Your task to perform on an android device: Open settings on Google Maps Image 0: 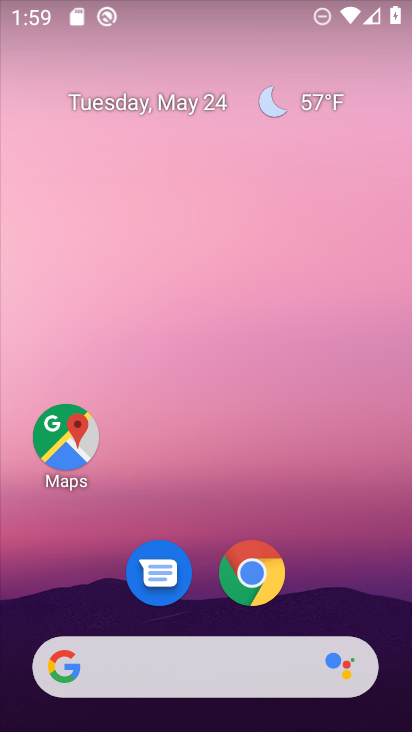
Step 0: drag from (366, 573) to (359, 179)
Your task to perform on an android device: Open settings on Google Maps Image 1: 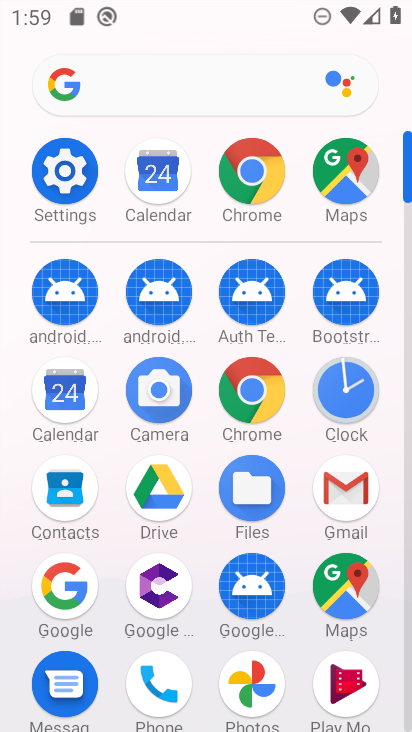
Step 1: click (368, 590)
Your task to perform on an android device: Open settings on Google Maps Image 2: 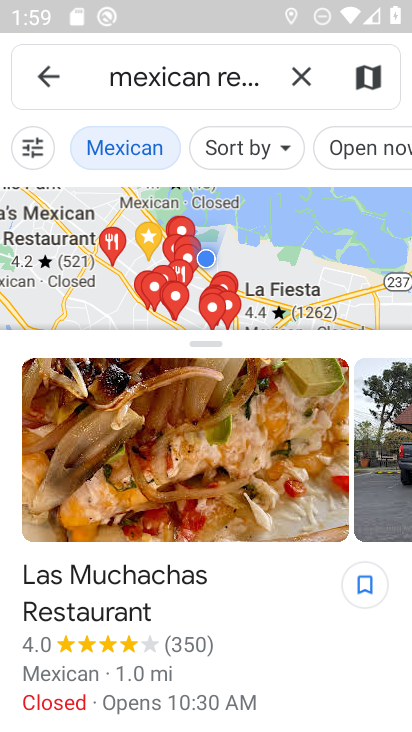
Step 2: click (38, 81)
Your task to perform on an android device: Open settings on Google Maps Image 3: 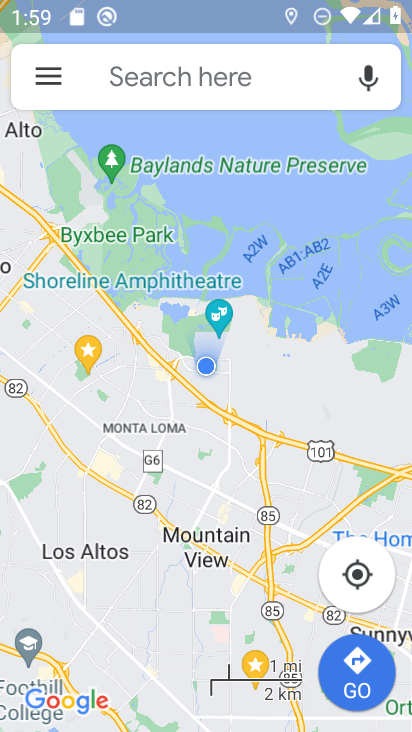
Step 3: click (38, 76)
Your task to perform on an android device: Open settings on Google Maps Image 4: 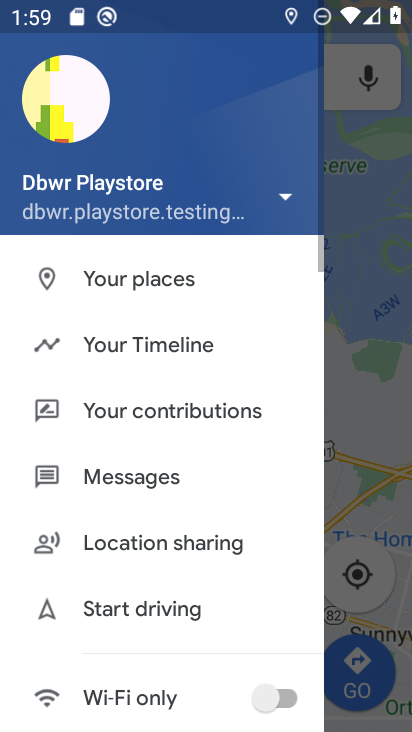
Step 4: click (103, 352)
Your task to perform on an android device: Open settings on Google Maps Image 5: 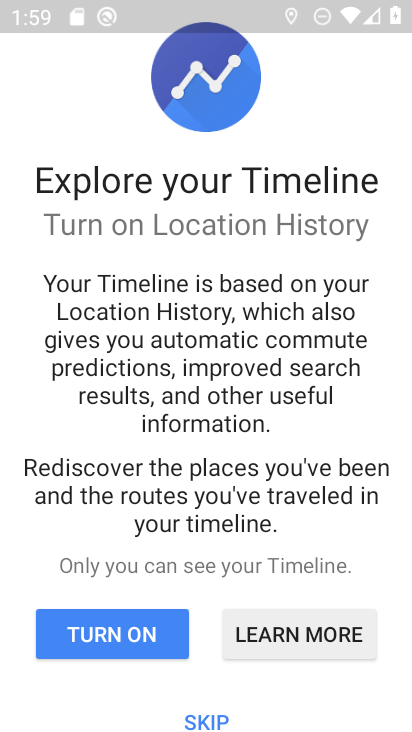
Step 5: click (209, 723)
Your task to perform on an android device: Open settings on Google Maps Image 6: 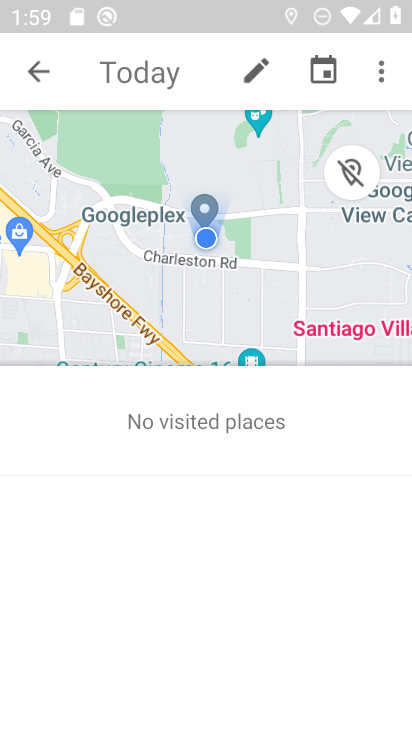
Step 6: click (373, 62)
Your task to perform on an android device: Open settings on Google Maps Image 7: 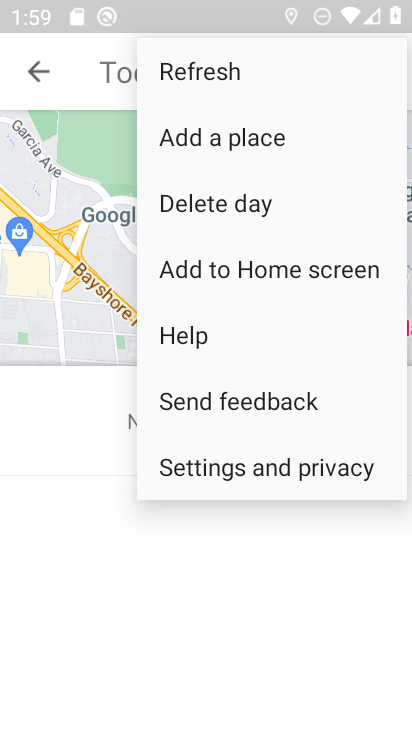
Step 7: click (211, 477)
Your task to perform on an android device: Open settings on Google Maps Image 8: 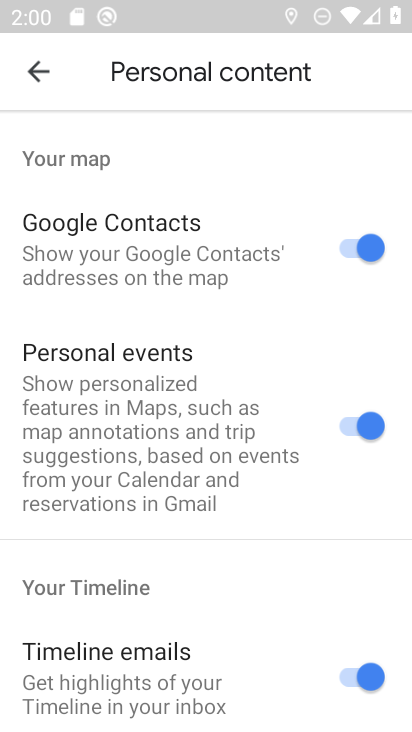
Step 8: task complete